Your task to perform on an android device: Open calendar and show me the first week of next month Image 0: 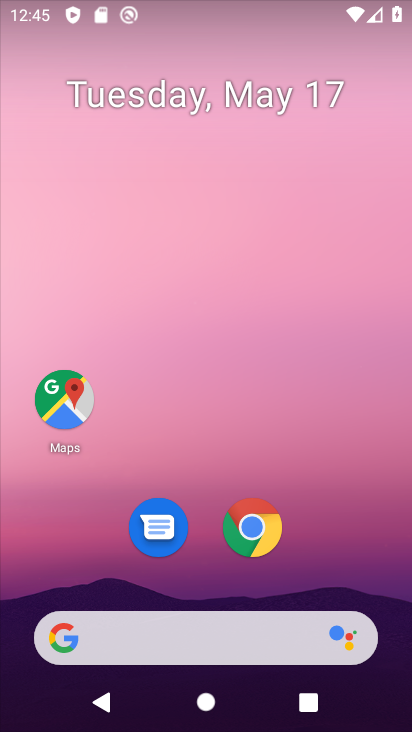
Step 0: drag from (56, 590) to (234, 105)
Your task to perform on an android device: Open calendar and show me the first week of next month Image 1: 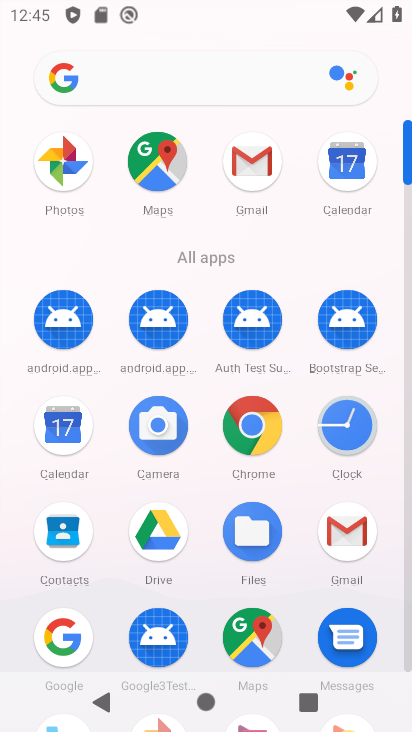
Step 1: click (358, 185)
Your task to perform on an android device: Open calendar and show me the first week of next month Image 2: 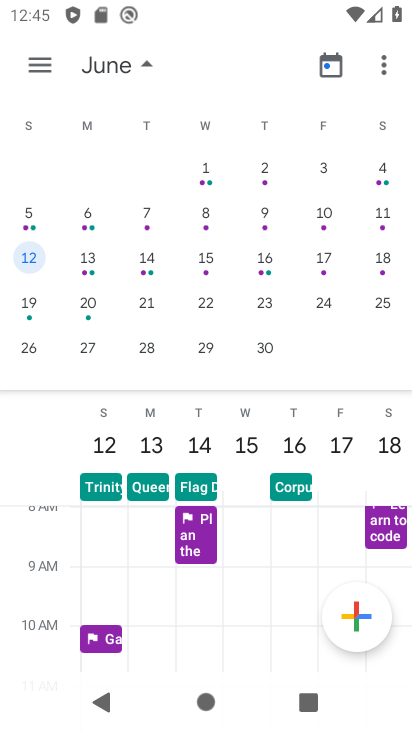
Step 2: click (30, 216)
Your task to perform on an android device: Open calendar and show me the first week of next month Image 3: 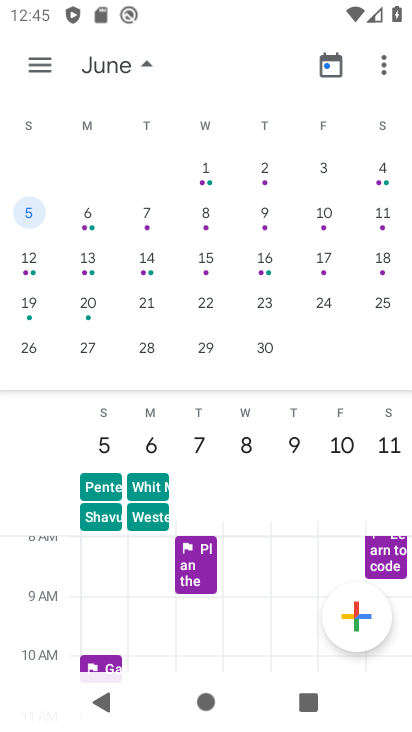
Step 3: task complete